Your task to perform on an android device: Search for Mexican restaurants on Maps Image 0: 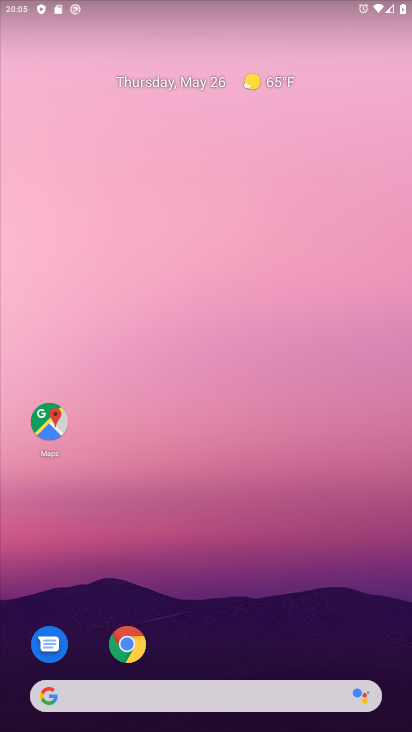
Step 0: drag from (200, 612) to (224, 11)
Your task to perform on an android device: Search for Mexican restaurants on Maps Image 1: 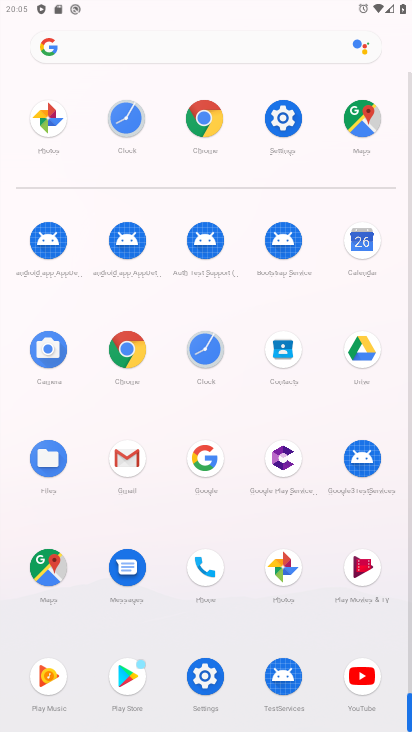
Step 1: click (41, 569)
Your task to perform on an android device: Search for Mexican restaurants on Maps Image 2: 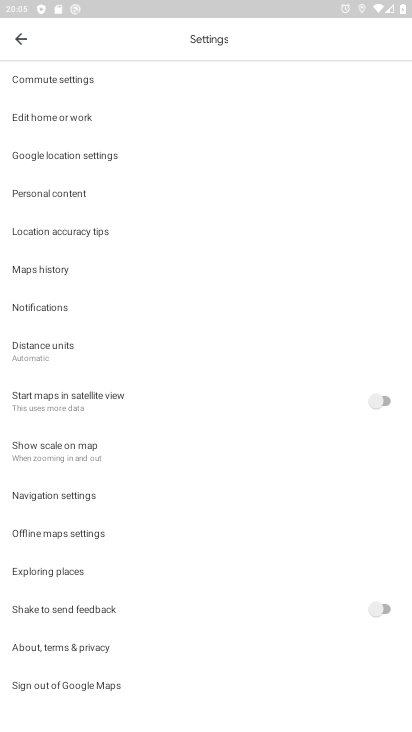
Step 2: click (16, 36)
Your task to perform on an android device: Search for Mexican restaurants on Maps Image 3: 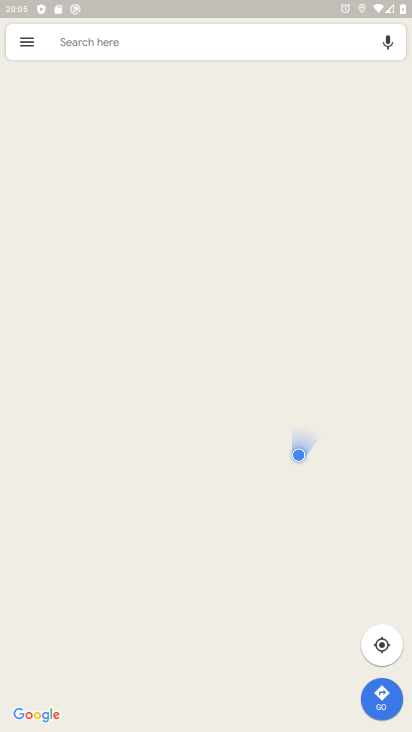
Step 3: click (15, 44)
Your task to perform on an android device: Search for Mexican restaurants on Maps Image 4: 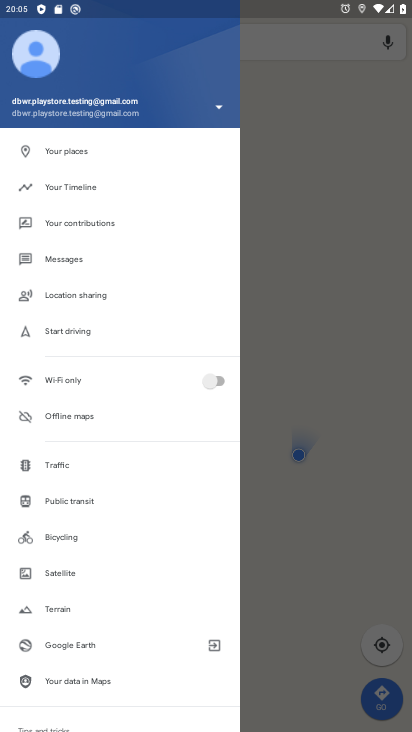
Step 4: click (321, 179)
Your task to perform on an android device: Search for Mexican restaurants on Maps Image 5: 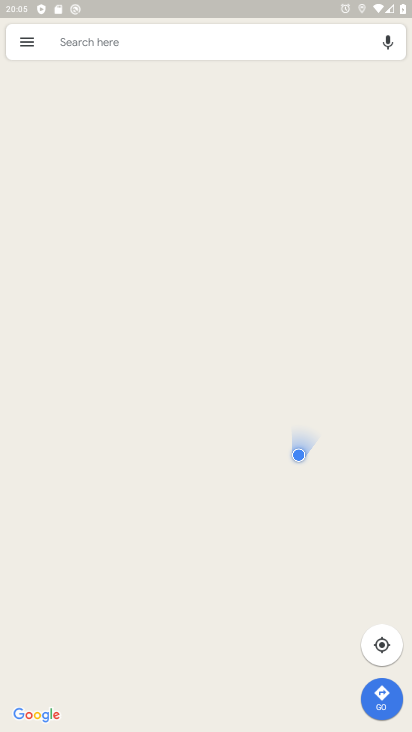
Step 5: click (245, 46)
Your task to perform on an android device: Search for Mexican restaurants on Maps Image 6: 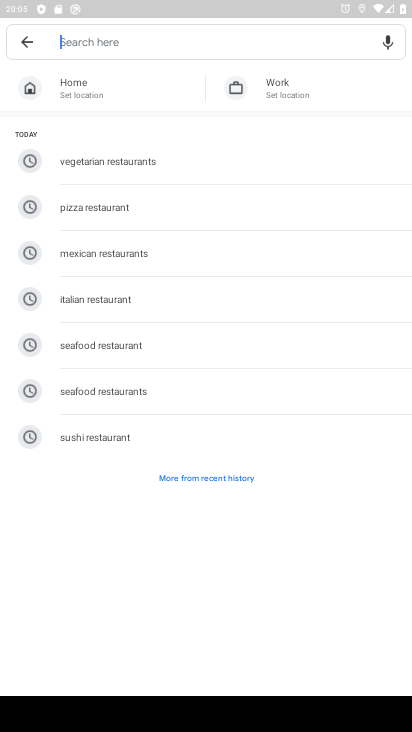
Step 6: click (137, 263)
Your task to perform on an android device: Search for Mexican restaurants on Maps Image 7: 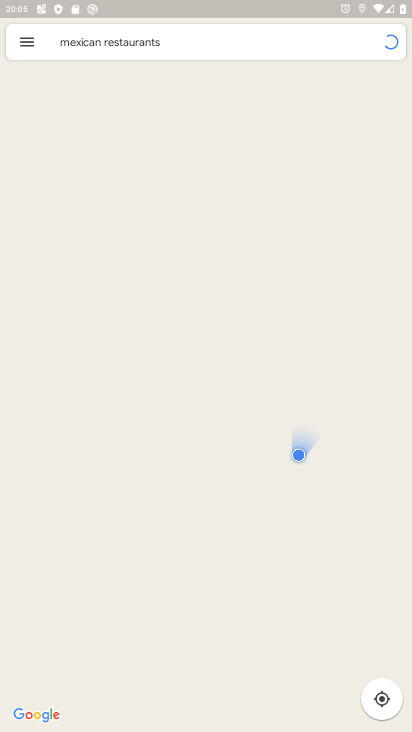
Step 7: task complete